Your task to perform on an android device: toggle airplane mode Image 0: 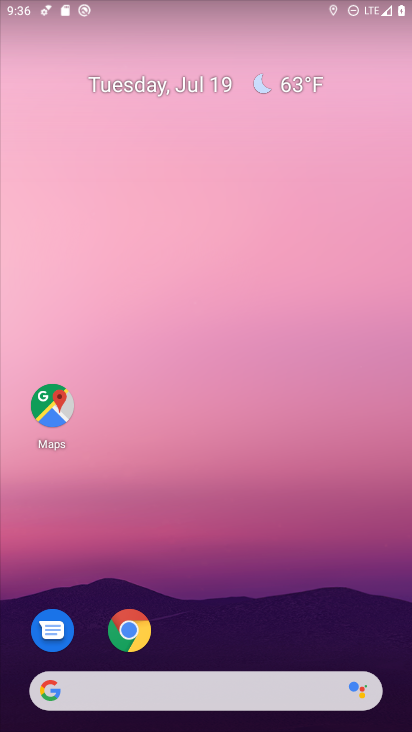
Step 0: drag from (194, 705) to (263, 87)
Your task to perform on an android device: toggle airplane mode Image 1: 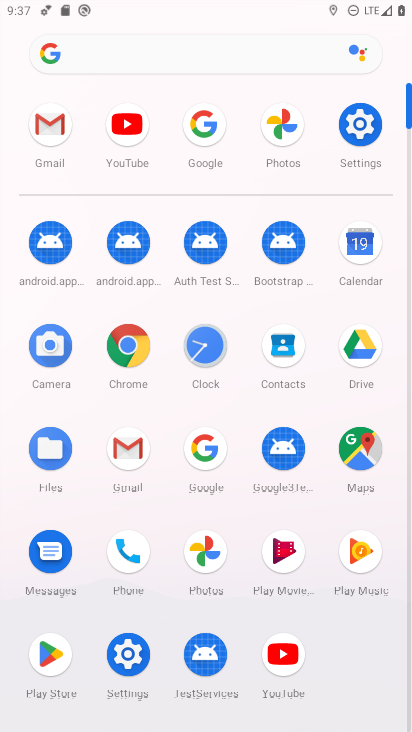
Step 1: click (359, 122)
Your task to perform on an android device: toggle airplane mode Image 2: 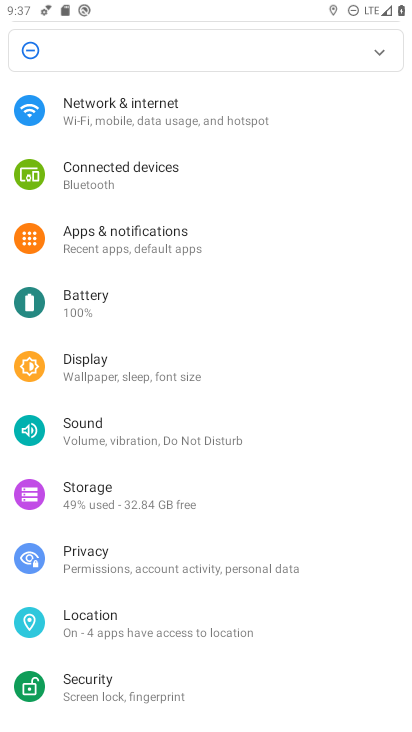
Step 2: click (239, 120)
Your task to perform on an android device: toggle airplane mode Image 3: 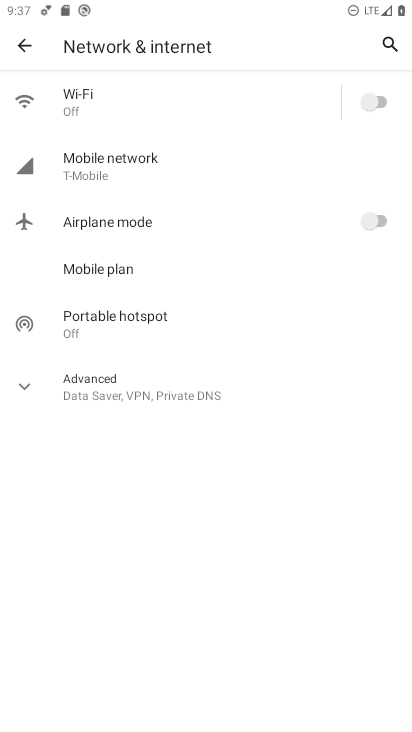
Step 3: click (365, 217)
Your task to perform on an android device: toggle airplane mode Image 4: 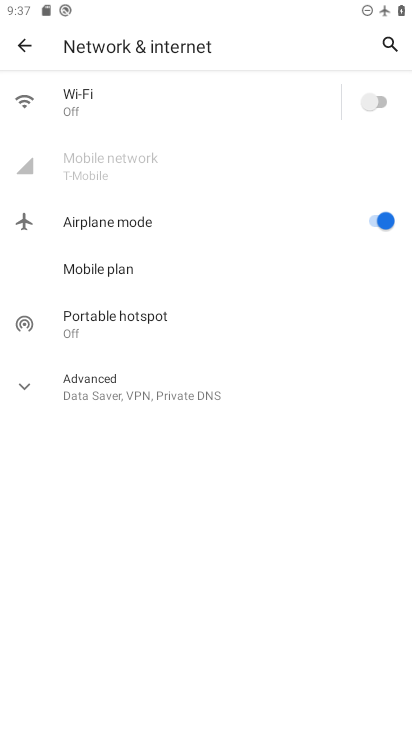
Step 4: task complete